Your task to perform on an android device: turn off location Image 0: 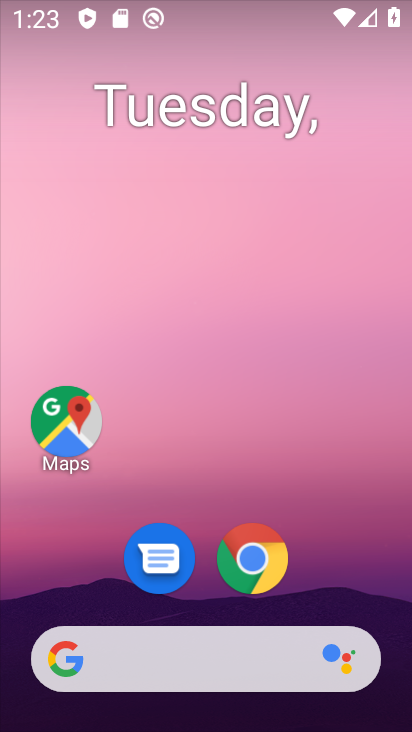
Step 0: drag from (233, 596) to (347, 58)
Your task to perform on an android device: turn off location Image 1: 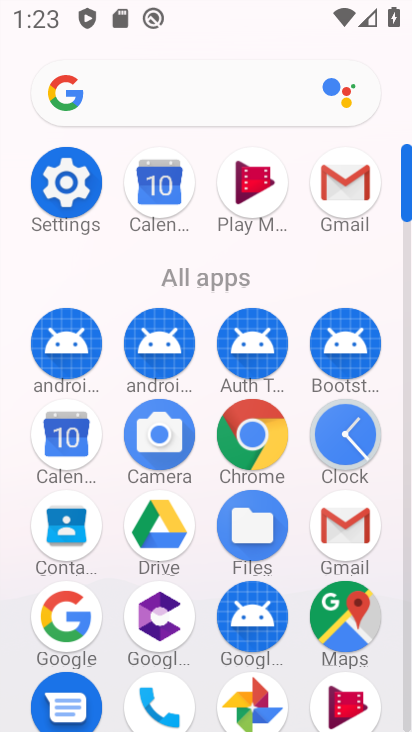
Step 1: click (50, 182)
Your task to perform on an android device: turn off location Image 2: 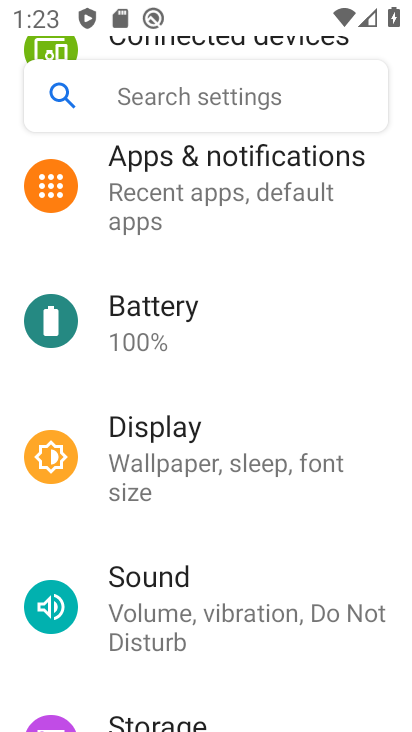
Step 2: drag from (213, 670) to (360, 102)
Your task to perform on an android device: turn off location Image 3: 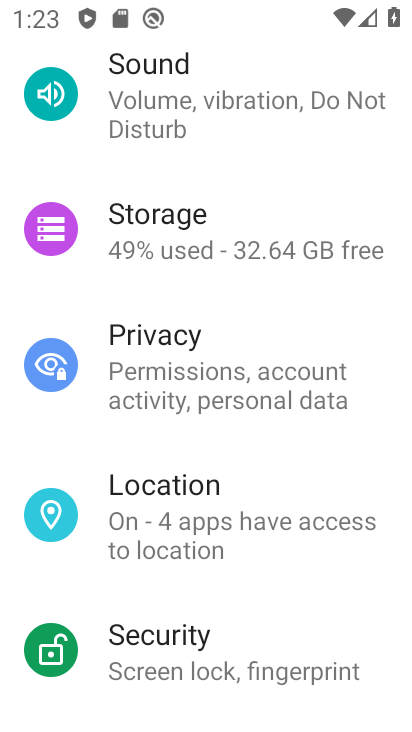
Step 3: click (173, 510)
Your task to perform on an android device: turn off location Image 4: 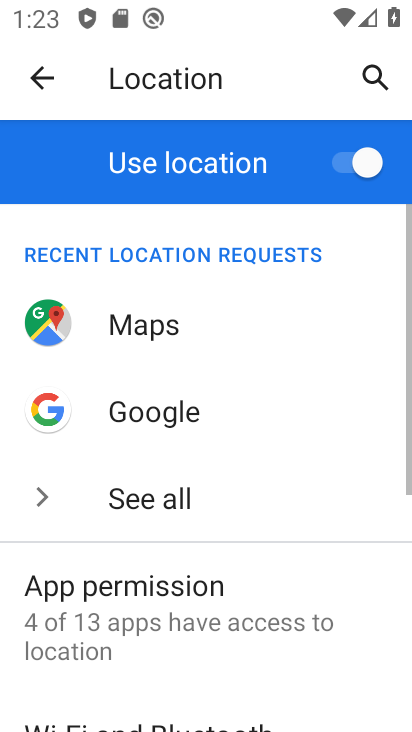
Step 4: click (353, 173)
Your task to perform on an android device: turn off location Image 5: 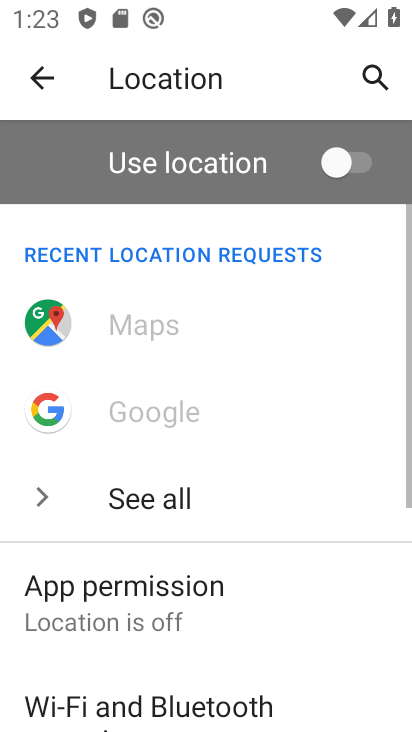
Step 5: task complete